Your task to perform on an android device: remove spam from my inbox in the gmail app Image 0: 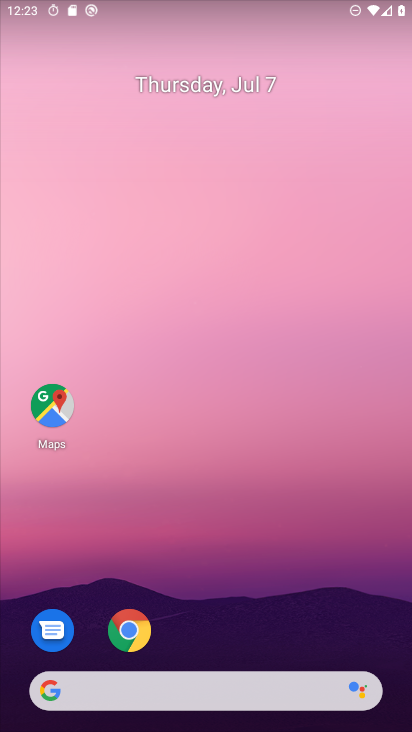
Step 0: drag from (207, 631) to (249, 71)
Your task to perform on an android device: remove spam from my inbox in the gmail app Image 1: 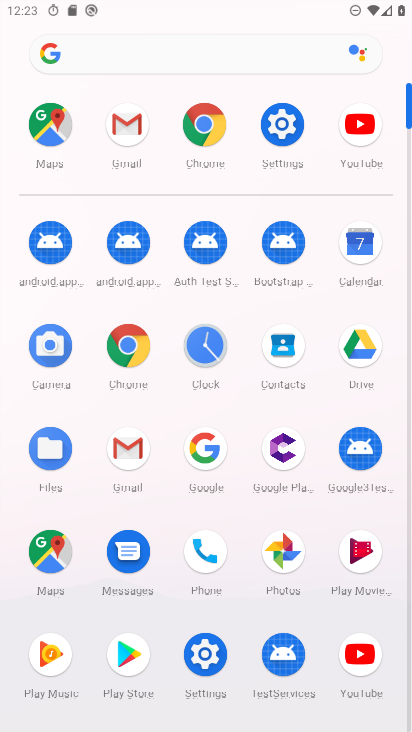
Step 1: click (118, 454)
Your task to perform on an android device: remove spam from my inbox in the gmail app Image 2: 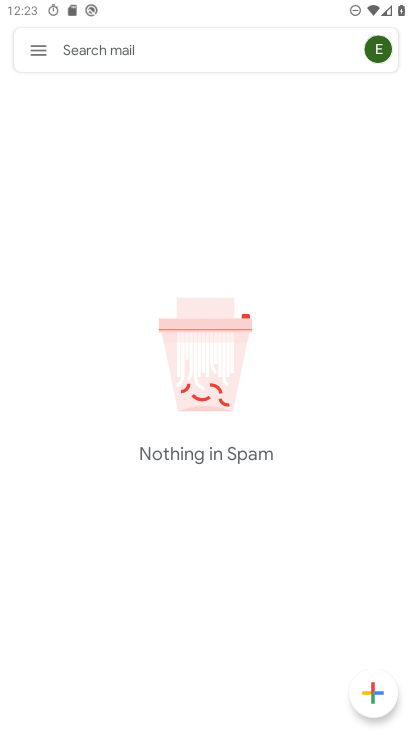
Step 2: click (35, 38)
Your task to perform on an android device: remove spam from my inbox in the gmail app Image 3: 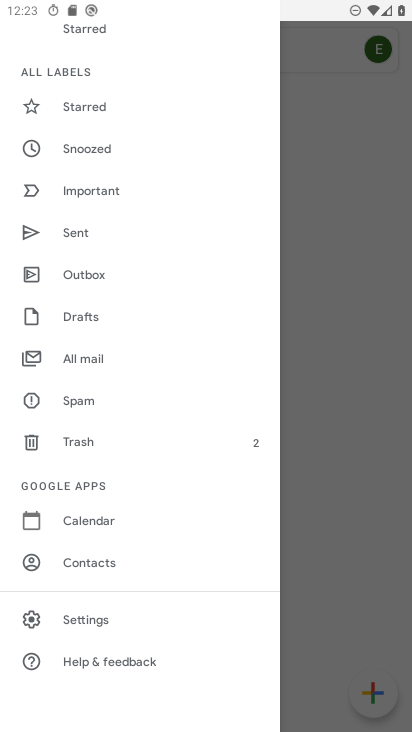
Step 3: click (81, 390)
Your task to perform on an android device: remove spam from my inbox in the gmail app Image 4: 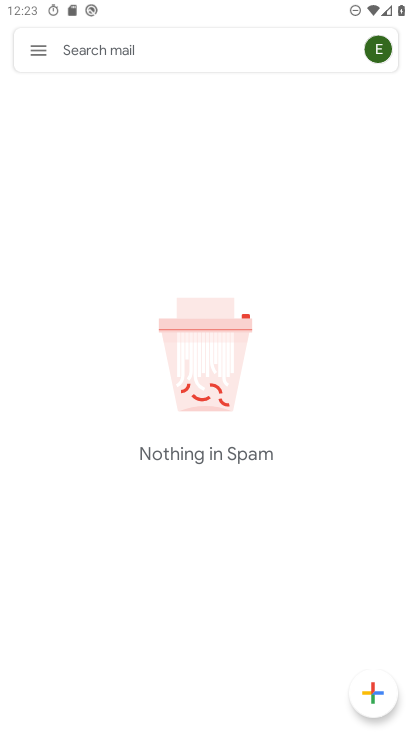
Step 4: task complete